Your task to perform on an android device: turn on bluetooth scan Image 0: 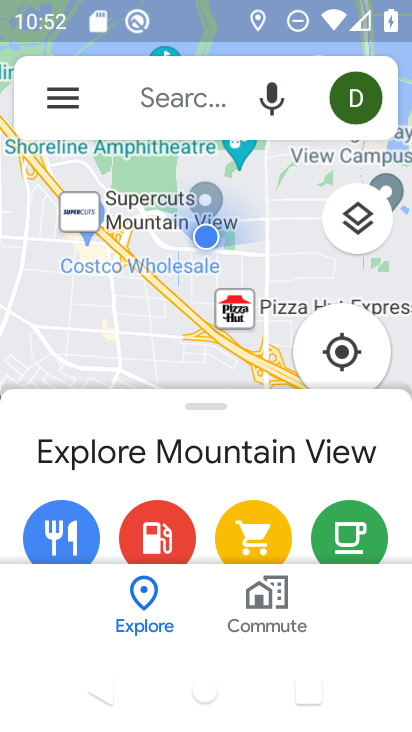
Step 0: press home button
Your task to perform on an android device: turn on bluetooth scan Image 1: 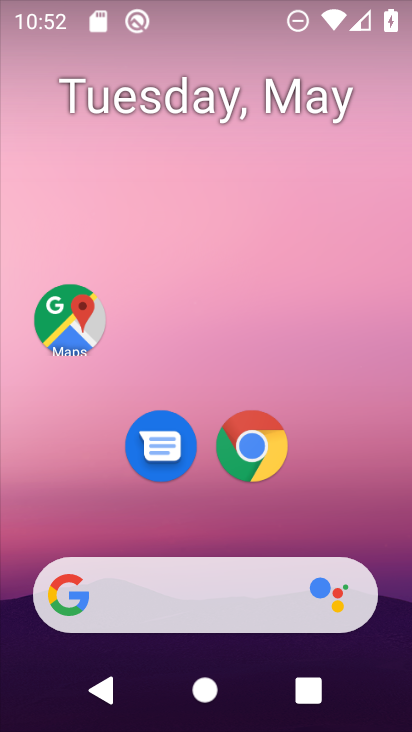
Step 1: drag from (230, 511) to (269, 21)
Your task to perform on an android device: turn on bluetooth scan Image 2: 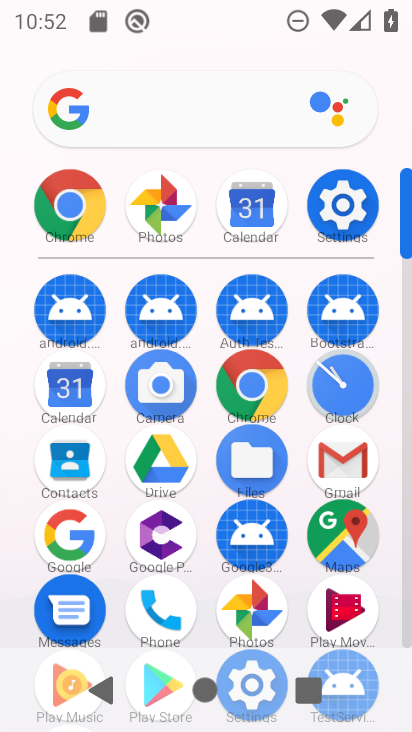
Step 2: click (333, 220)
Your task to perform on an android device: turn on bluetooth scan Image 3: 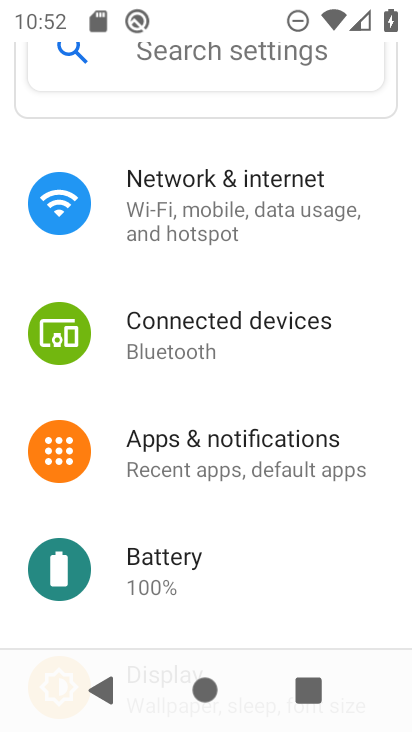
Step 3: drag from (253, 505) to (269, 78)
Your task to perform on an android device: turn on bluetooth scan Image 4: 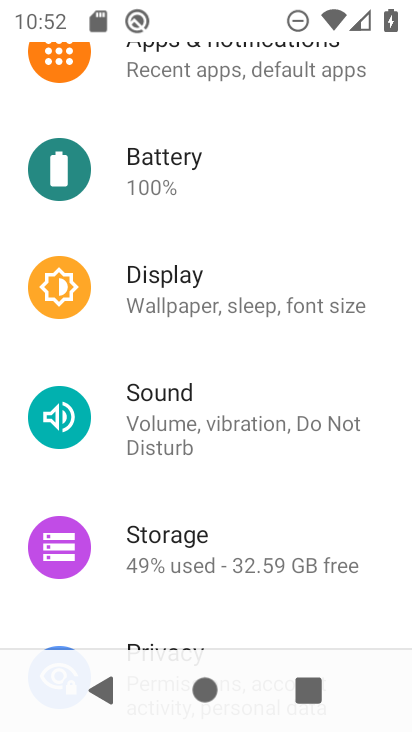
Step 4: drag from (223, 540) to (271, 222)
Your task to perform on an android device: turn on bluetooth scan Image 5: 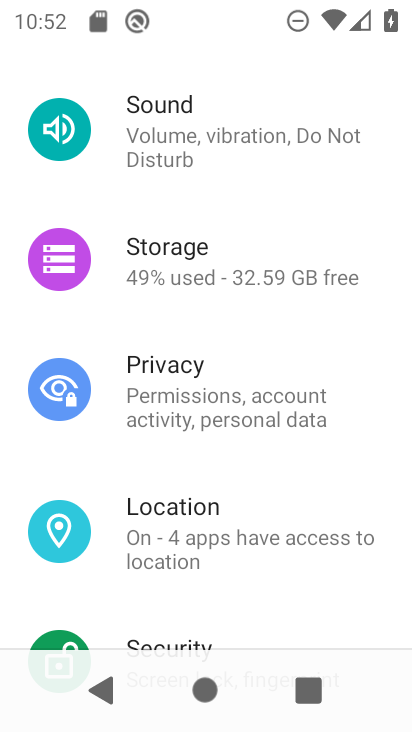
Step 5: click (190, 521)
Your task to perform on an android device: turn on bluetooth scan Image 6: 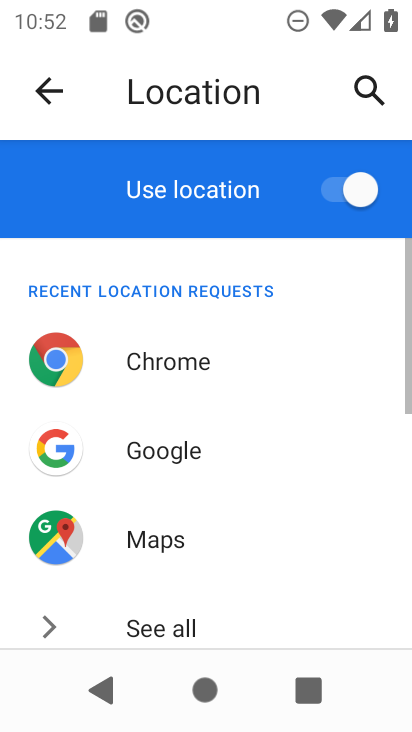
Step 6: drag from (180, 565) to (241, 244)
Your task to perform on an android device: turn on bluetooth scan Image 7: 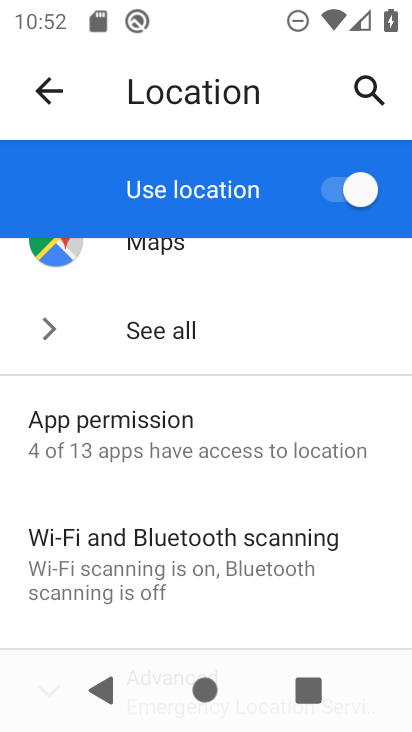
Step 7: click (203, 549)
Your task to perform on an android device: turn on bluetooth scan Image 8: 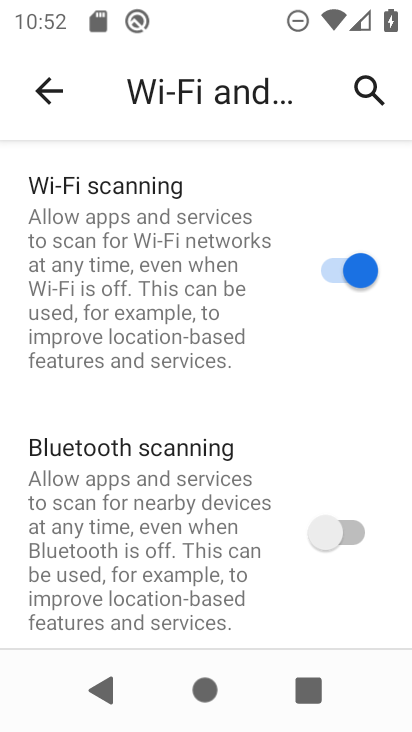
Step 8: click (357, 541)
Your task to perform on an android device: turn on bluetooth scan Image 9: 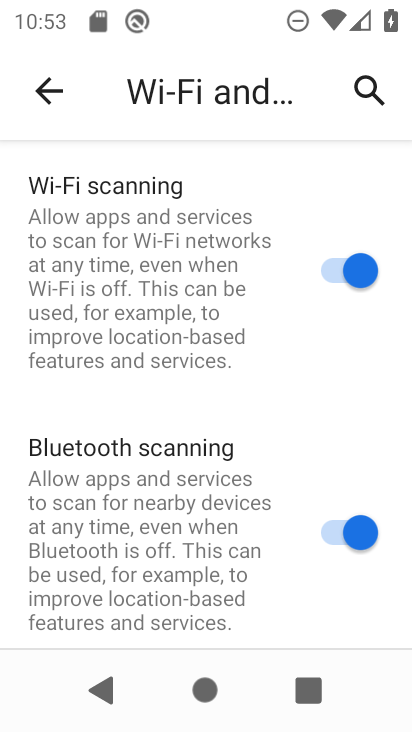
Step 9: task complete